Your task to perform on an android device: turn notification dots on Image 0: 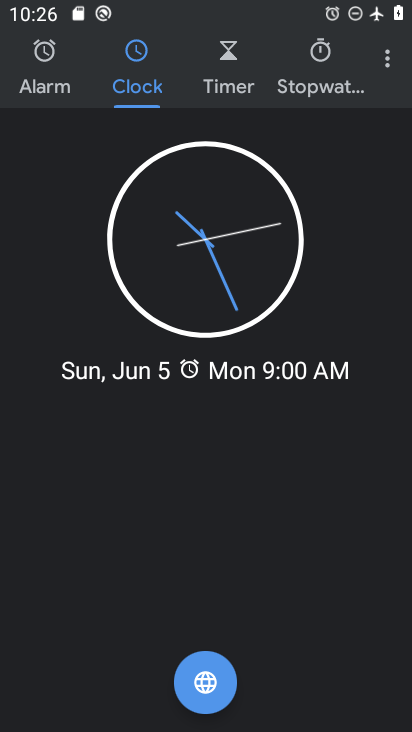
Step 0: press home button
Your task to perform on an android device: turn notification dots on Image 1: 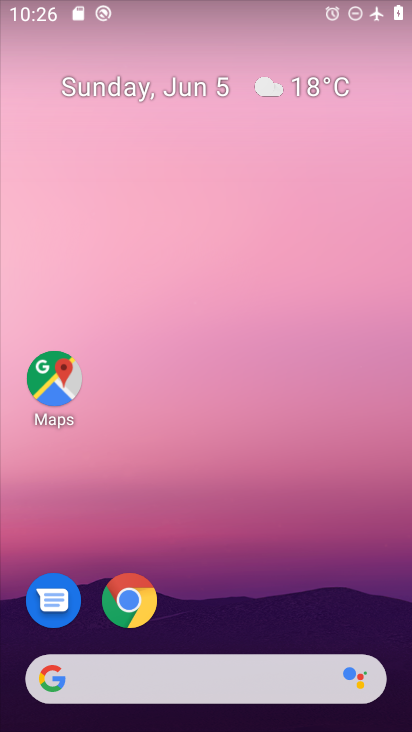
Step 1: drag from (256, 545) to (219, 24)
Your task to perform on an android device: turn notification dots on Image 2: 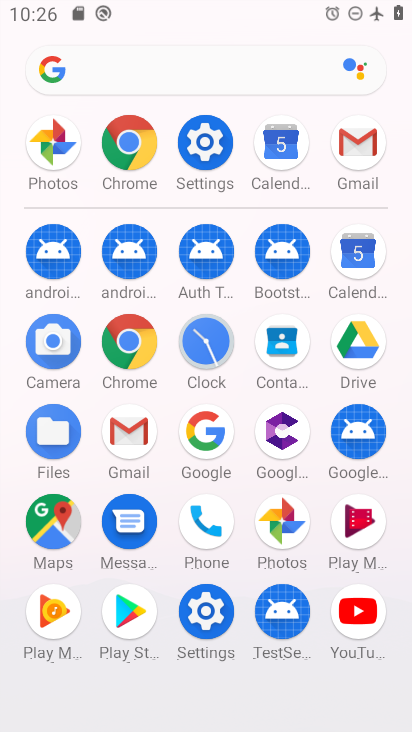
Step 2: click (204, 136)
Your task to perform on an android device: turn notification dots on Image 3: 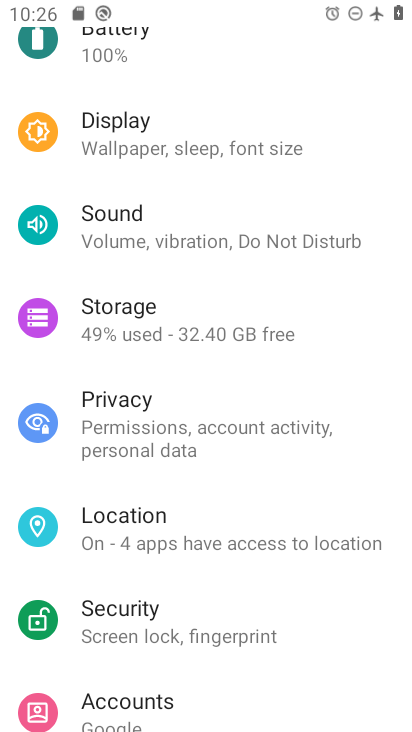
Step 3: drag from (228, 227) to (251, 560)
Your task to perform on an android device: turn notification dots on Image 4: 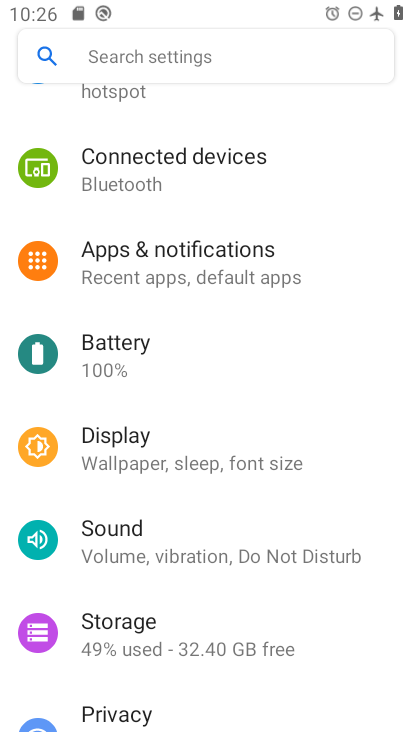
Step 4: click (229, 264)
Your task to perform on an android device: turn notification dots on Image 5: 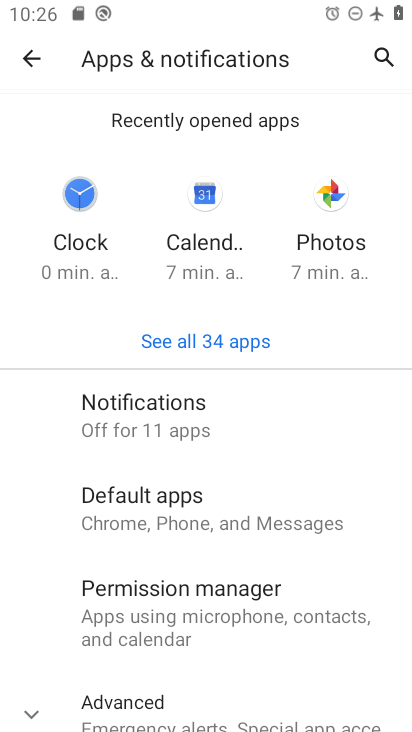
Step 5: click (28, 706)
Your task to perform on an android device: turn notification dots on Image 6: 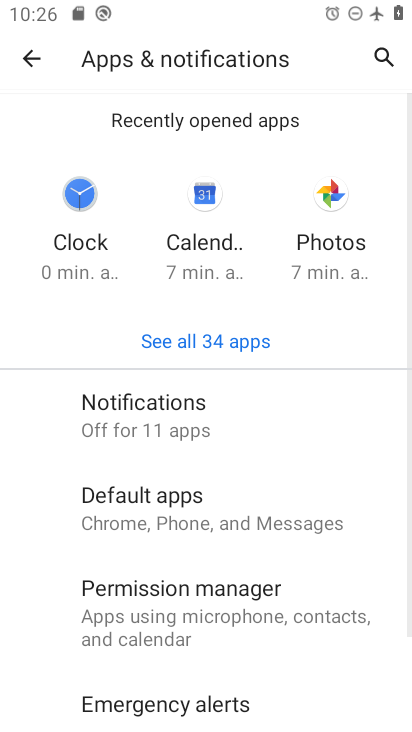
Step 6: click (195, 421)
Your task to perform on an android device: turn notification dots on Image 7: 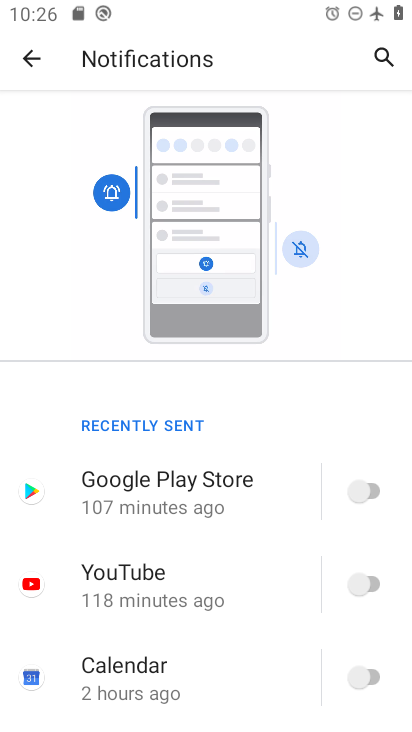
Step 7: drag from (242, 571) to (222, 185)
Your task to perform on an android device: turn notification dots on Image 8: 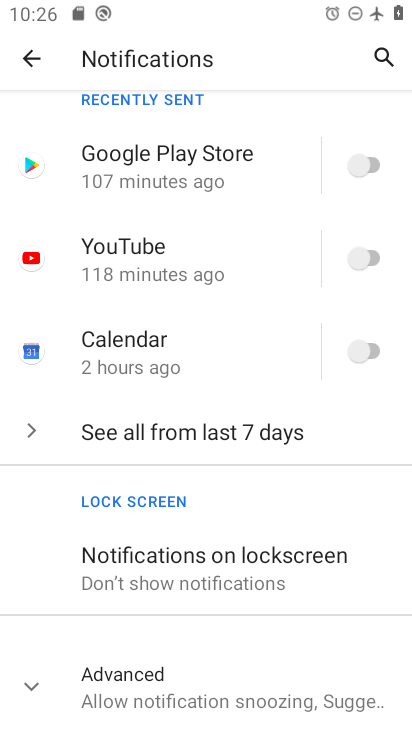
Step 8: click (30, 684)
Your task to perform on an android device: turn notification dots on Image 9: 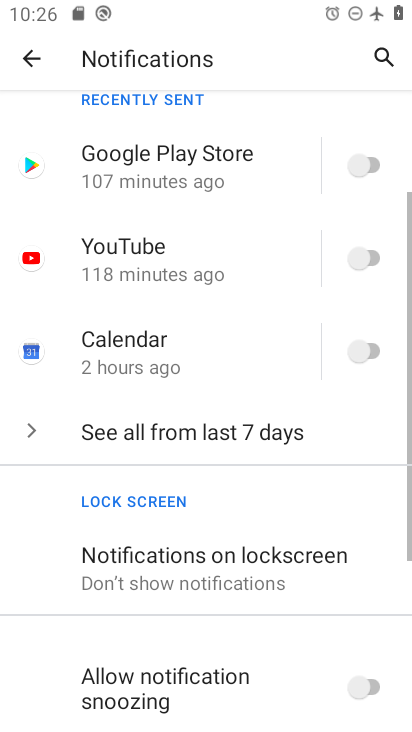
Step 9: drag from (262, 645) to (178, 278)
Your task to perform on an android device: turn notification dots on Image 10: 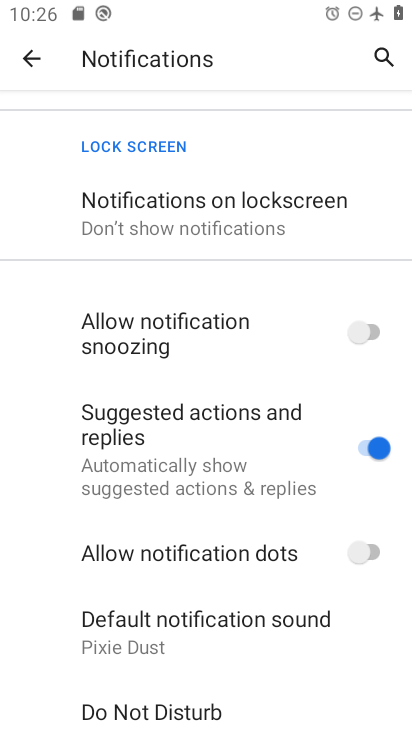
Step 10: click (370, 545)
Your task to perform on an android device: turn notification dots on Image 11: 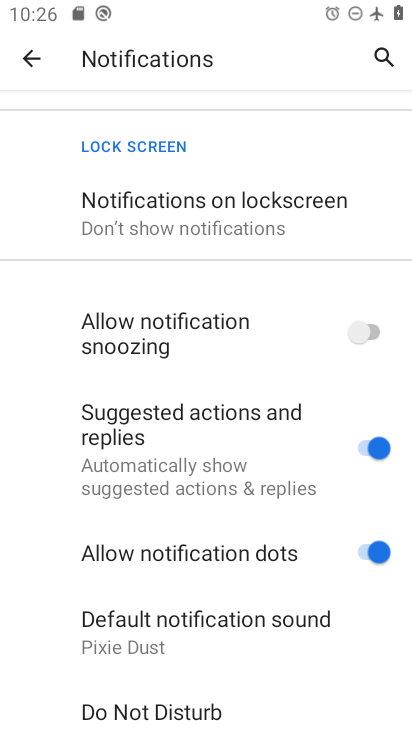
Step 11: task complete